Your task to perform on an android device: Open display settings Image 0: 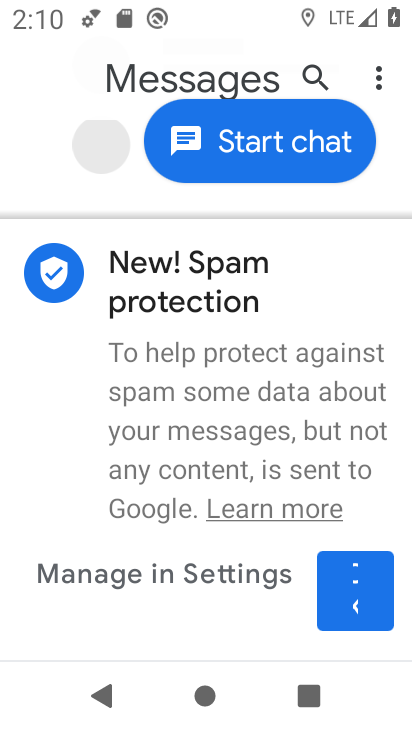
Step 0: press home button
Your task to perform on an android device: Open display settings Image 1: 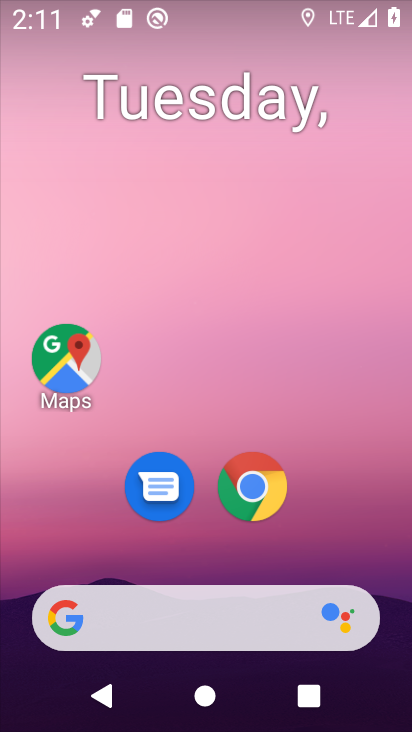
Step 1: drag from (350, 540) to (340, 95)
Your task to perform on an android device: Open display settings Image 2: 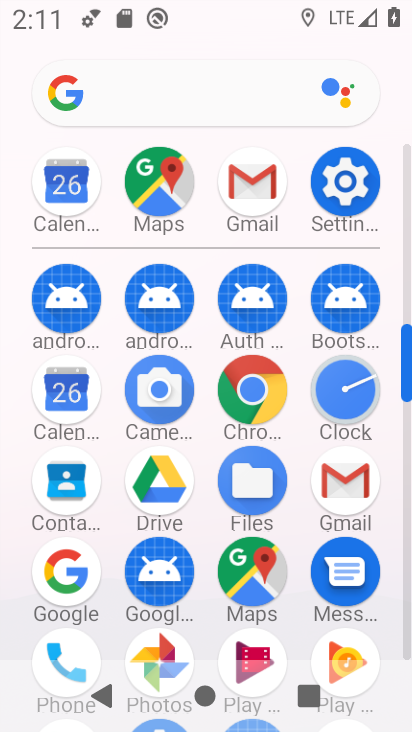
Step 2: click (353, 180)
Your task to perform on an android device: Open display settings Image 3: 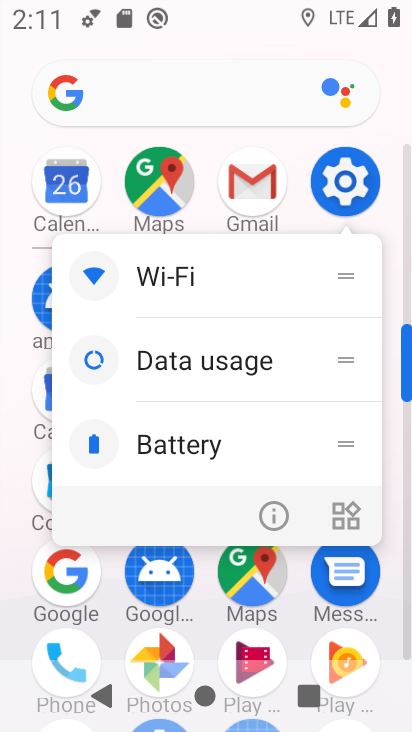
Step 3: click (353, 180)
Your task to perform on an android device: Open display settings Image 4: 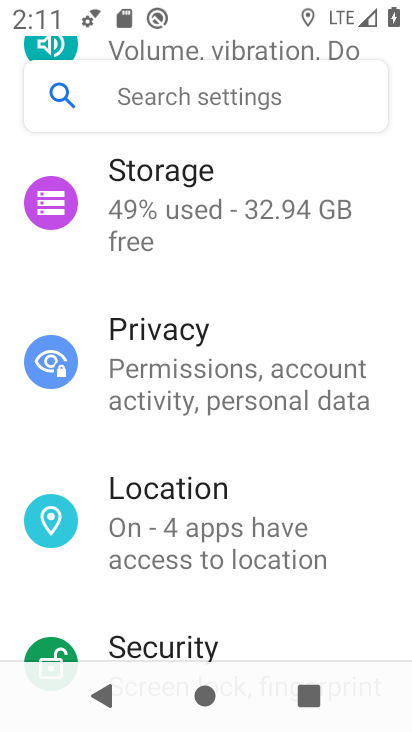
Step 4: drag from (358, 553) to (349, 417)
Your task to perform on an android device: Open display settings Image 5: 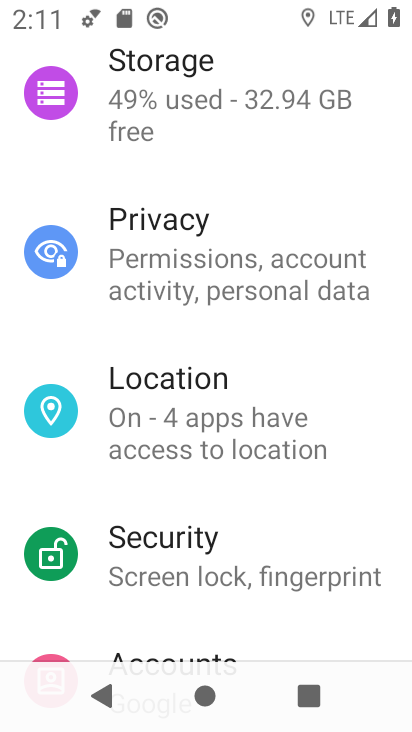
Step 5: drag from (355, 584) to (356, 420)
Your task to perform on an android device: Open display settings Image 6: 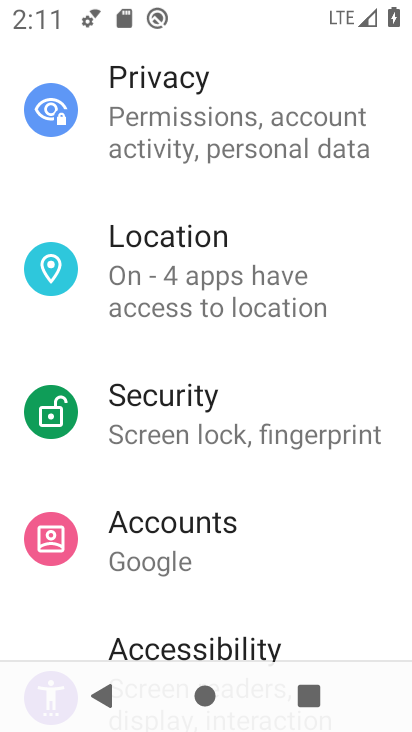
Step 6: drag from (342, 582) to (343, 447)
Your task to perform on an android device: Open display settings Image 7: 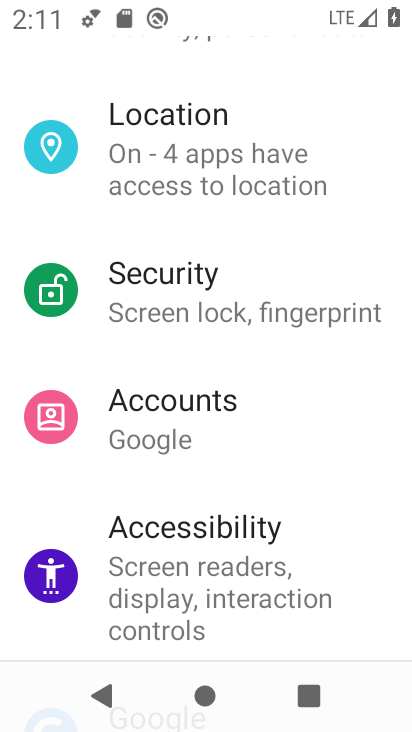
Step 7: drag from (361, 608) to (342, 402)
Your task to perform on an android device: Open display settings Image 8: 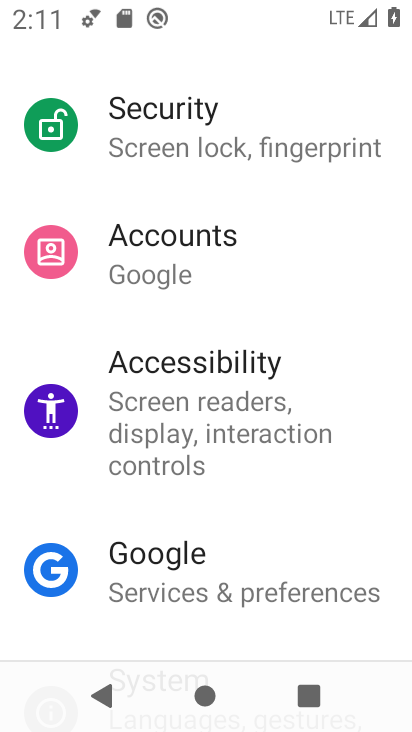
Step 8: drag from (353, 495) to (352, 379)
Your task to perform on an android device: Open display settings Image 9: 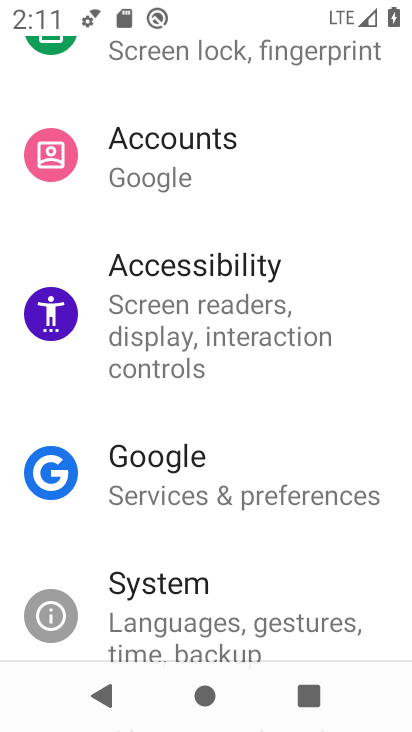
Step 9: drag from (357, 561) to (366, 373)
Your task to perform on an android device: Open display settings Image 10: 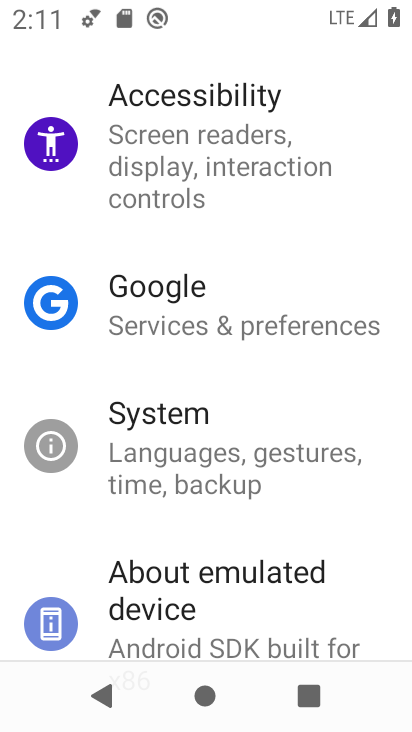
Step 10: drag from (366, 371) to (380, 492)
Your task to perform on an android device: Open display settings Image 11: 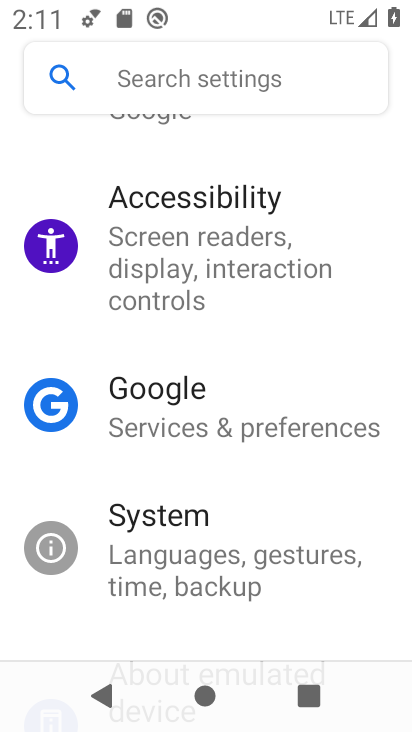
Step 11: drag from (381, 277) to (381, 411)
Your task to perform on an android device: Open display settings Image 12: 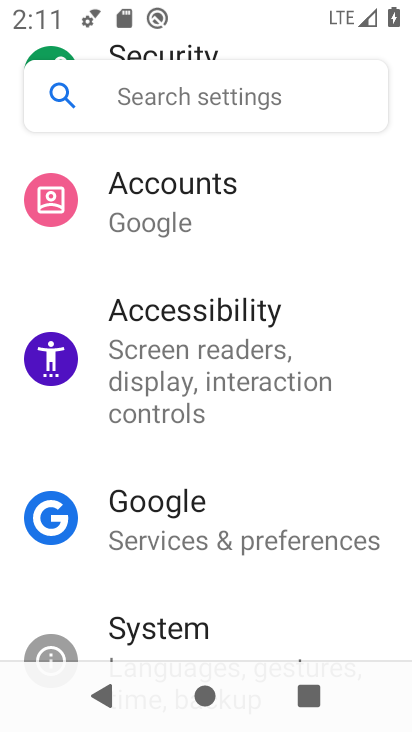
Step 12: drag from (376, 254) to (375, 386)
Your task to perform on an android device: Open display settings Image 13: 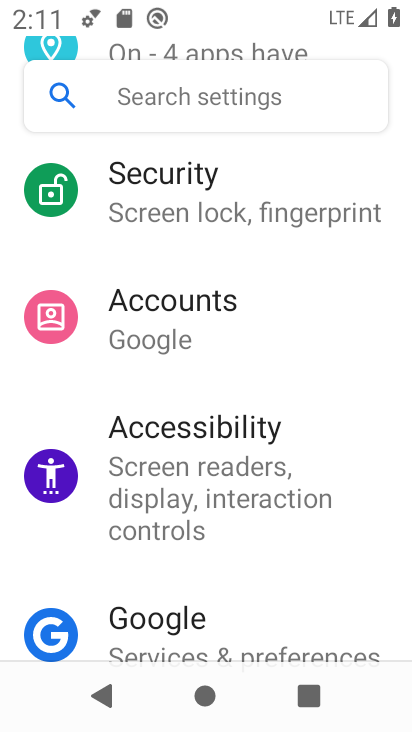
Step 13: drag from (370, 259) to (363, 401)
Your task to perform on an android device: Open display settings Image 14: 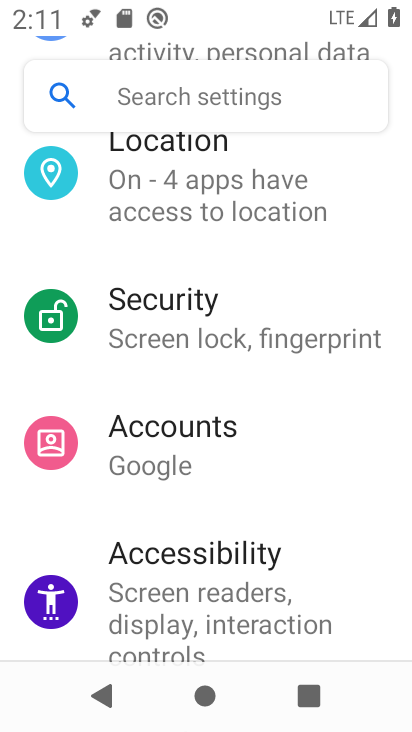
Step 14: drag from (363, 210) to (377, 430)
Your task to perform on an android device: Open display settings Image 15: 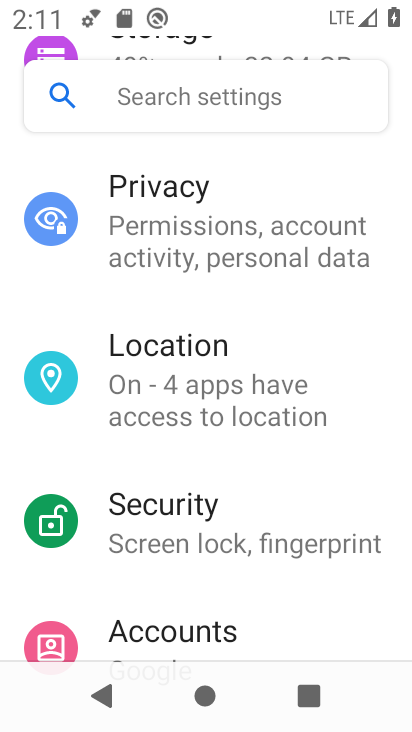
Step 15: drag from (382, 178) to (365, 399)
Your task to perform on an android device: Open display settings Image 16: 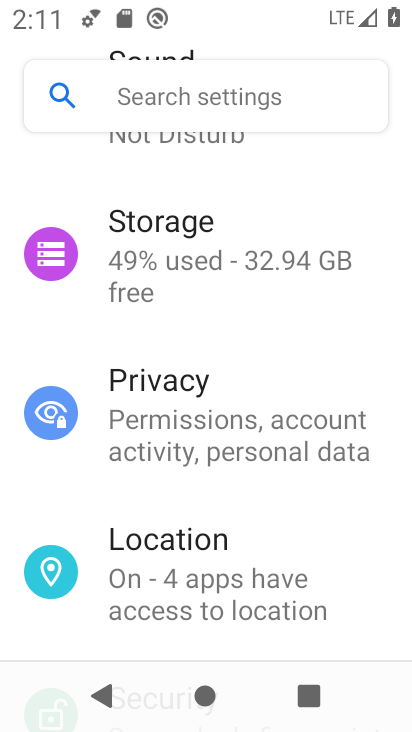
Step 16: drag from (369, 182) to (364, 414)
Your task to perform on an android device: Open display settings Image 17: 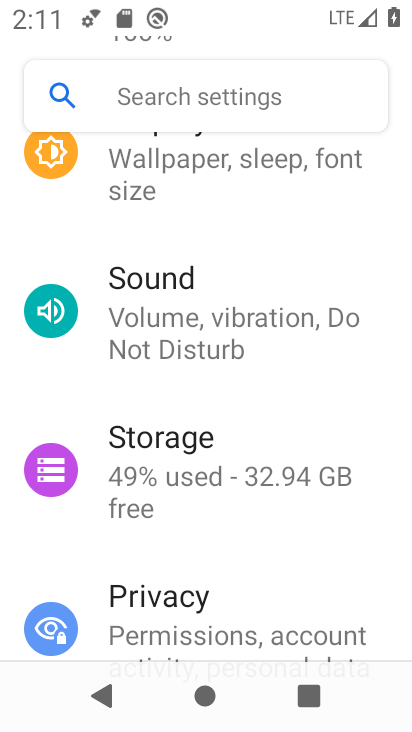
Step 17: drag from (358, 190) to (361, 369)
Your task to perform on an android device: Open display settings Image 18: 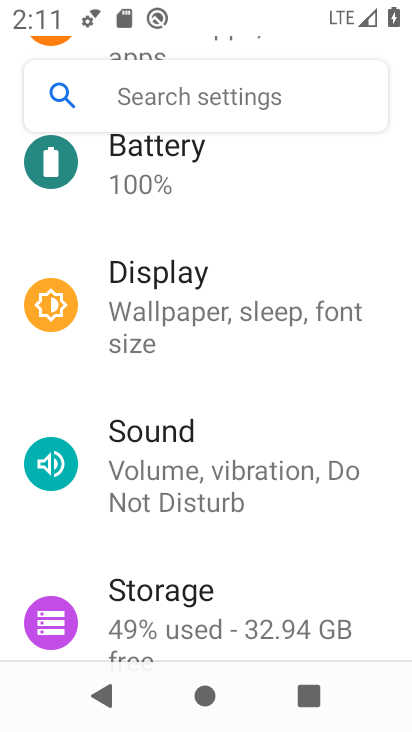
Step 18: click (242, 291)
Your task to perform on an android device: Open display settings Image 19: 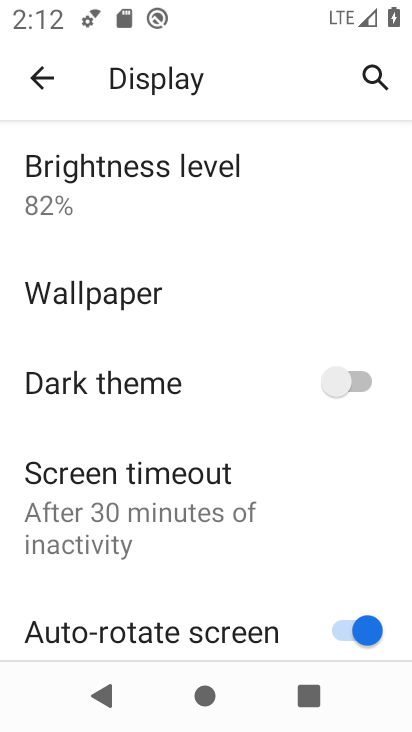
Step 19: drag from (257, 480) to (262, 380)
Your task to perform on an android device: Open display settings Image 20: 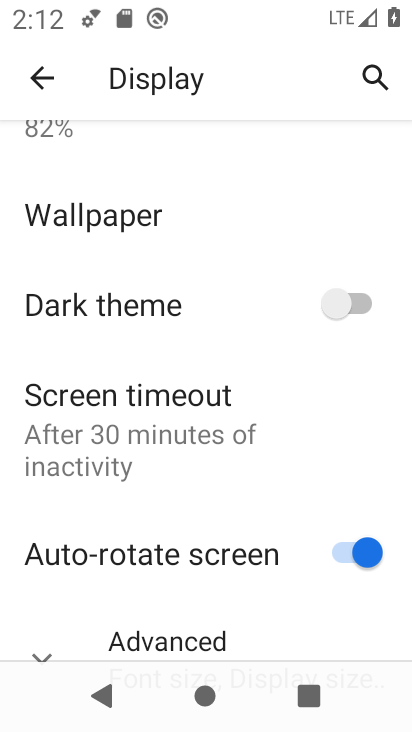
Step 20: drag from (264, 514) to (269, 347)
Your task to perform on an android device: Open display settings Image 21: 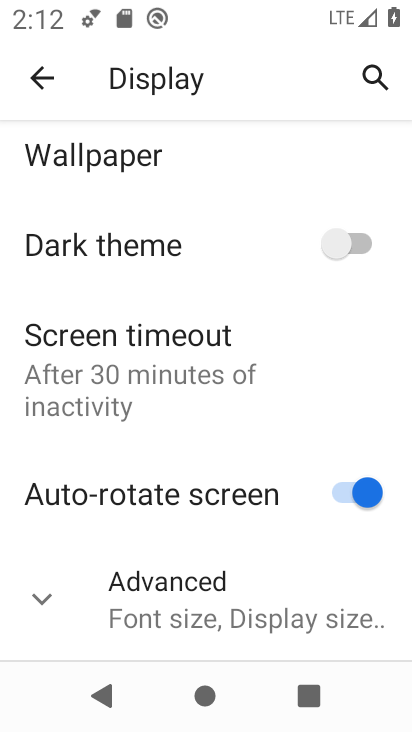
Step 21: click (262, 635)
Your task to perform on an android device: Open display settings Image 22: 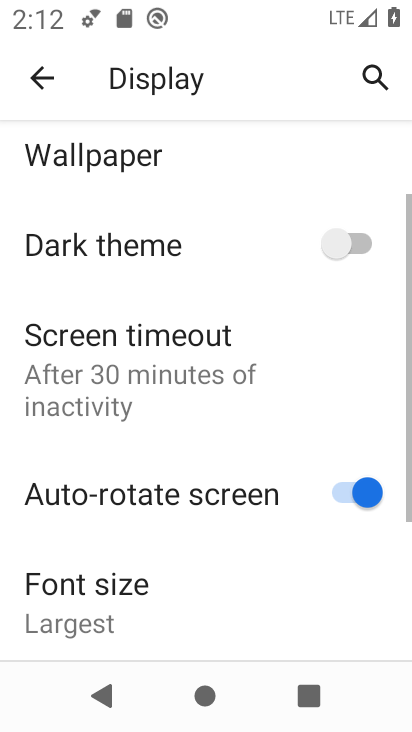
Step 22: task complete